Your task to perform on an android device: turn off notifications settings in the gmail app Image 0: 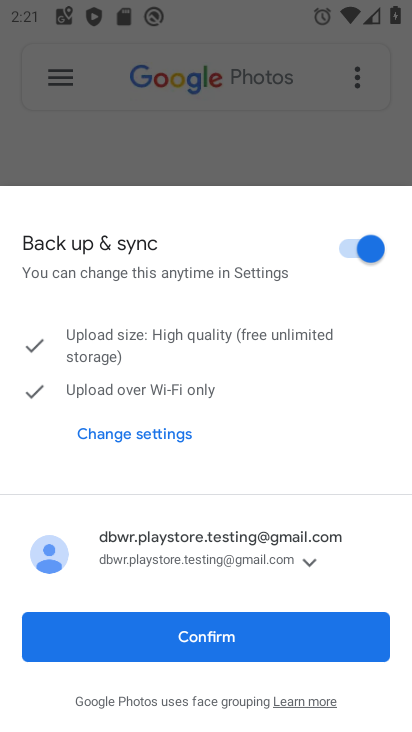
Step 0: click (324, 639)
Your task to perform on an android device: turn off notifications settings in the gmail app Image 1: 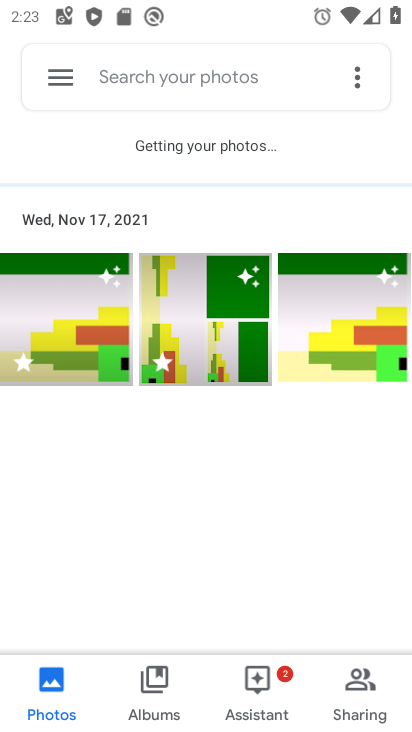
Step 1: press home button
Your task to perform on an android device: turn off notifications settings in the gmail app Image 2: 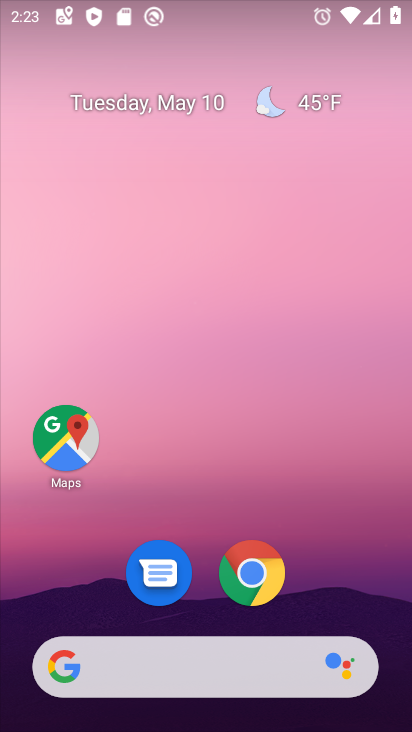
Step 2: drag from (242, 690) to (165, 210)
Your task to perform on an android device: turn off notifications settings in the gmail app Image 3: 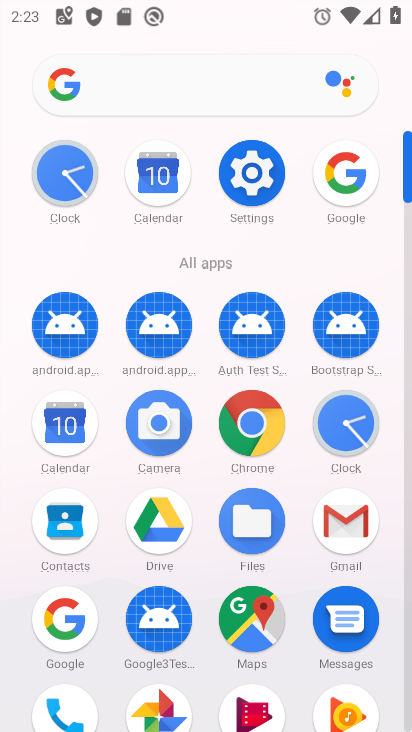
Step 3: click (334, 530)
Your task to perform on an android device: turn off notifications settings in the gmail app Image 4: 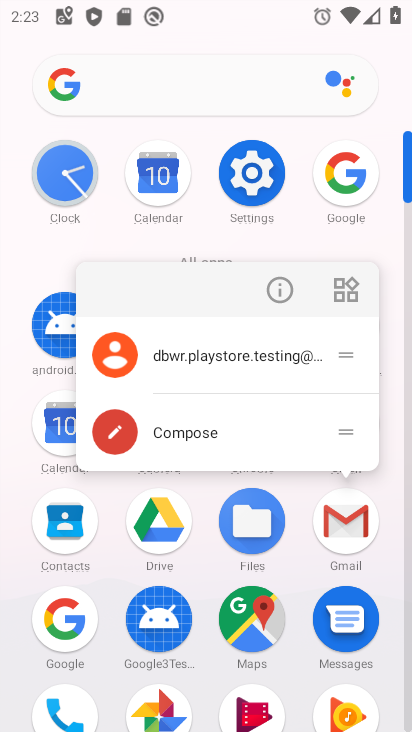
Step 4: click (284, 295)
Your task to perform on an android device: turn off notifications settings in the gmail app Image 5: 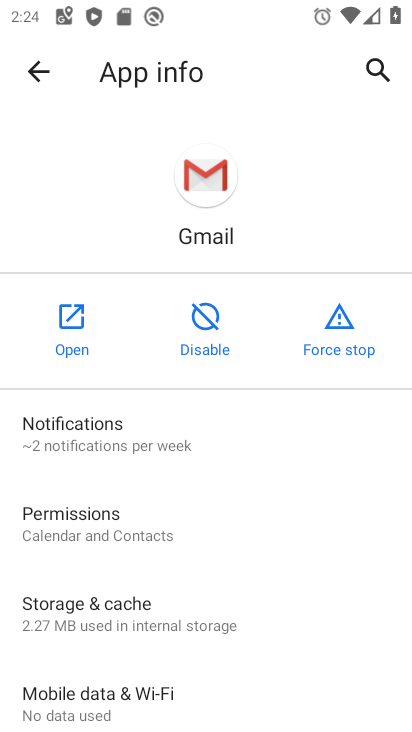
Step 5: click (204, 436)
Your task to perform on an android device: turn off notifications settings in the gmail app Image 6: 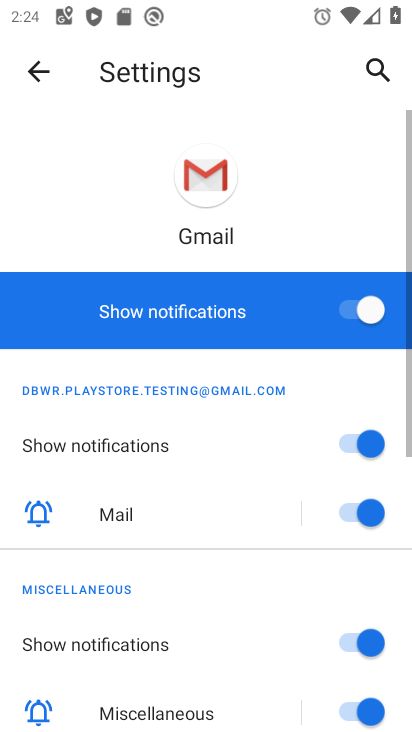
Step 6: click (385, 300)
Your task to perform on an android device: turn off notifications settings in the gmail app Image 7: 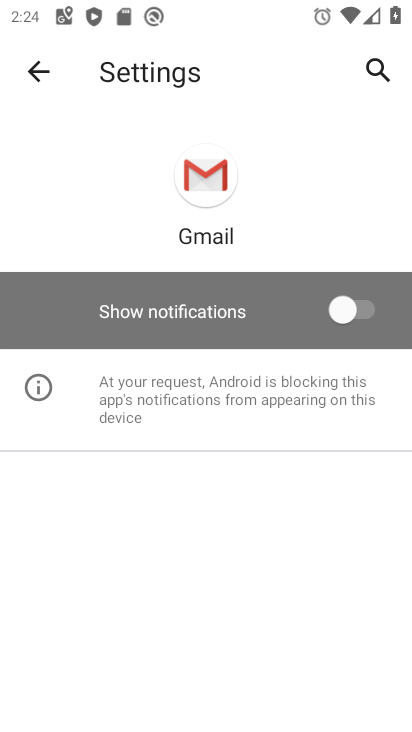
Step 7: task complete